Your task to perform on an android device: toggle improve location accuracy Image 0: 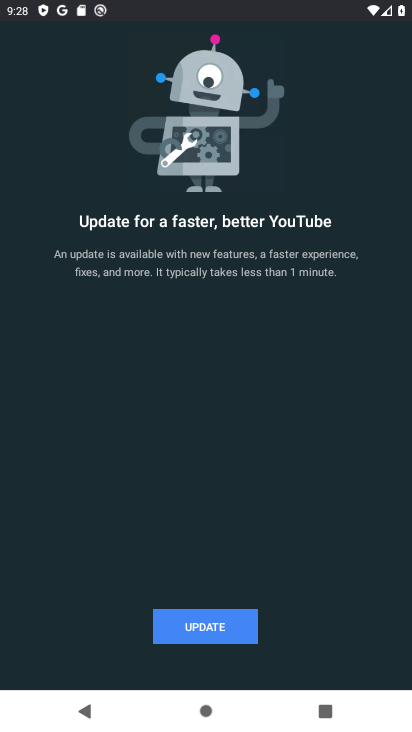
Step 0: press home button
Your task to perform on an android device: toggle improve location accuracy Image 1: 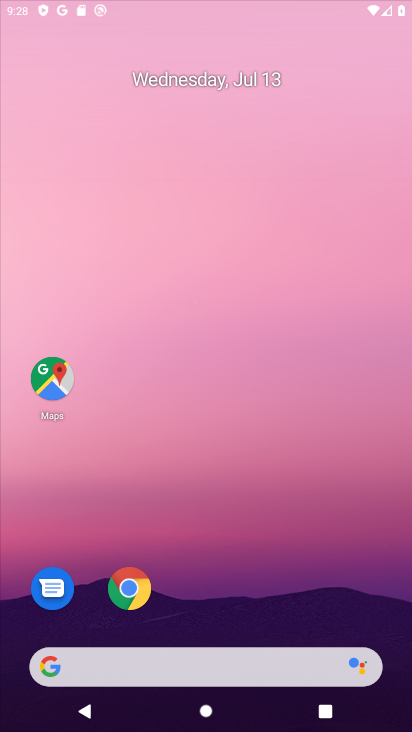
Step 1: drag from (231, 616) to (251, 63)
Your task to perform on an android device: toggle improve location accuracy Image 2: 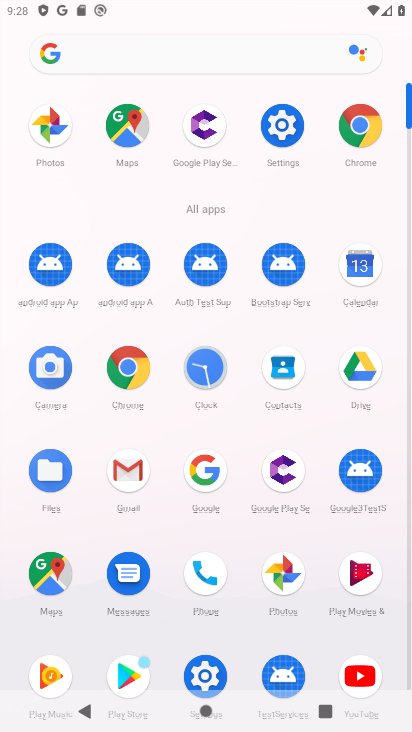
Step 2: click (289, 125)
Your task to perform on an android device: toggle improve location accuracy Image 3: 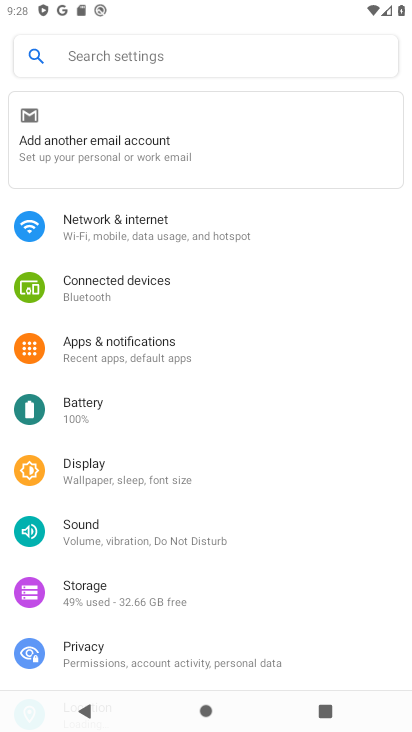
Step 3: drag from (173, 575) to (161, 231)
Your task to perform on an android device: toggle improve location accuracy Image 4: 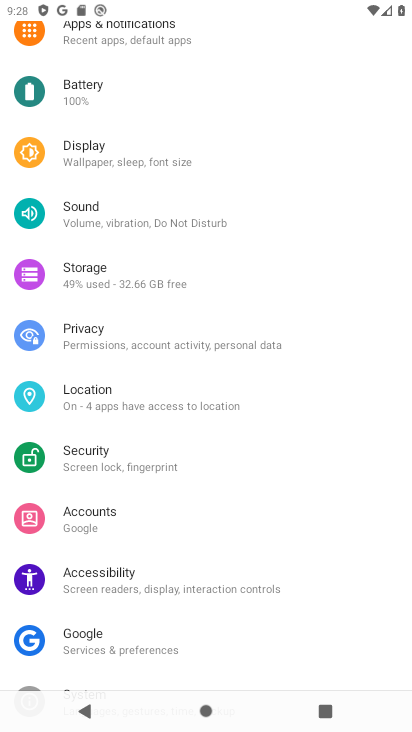
Step 4: click (126, 388)
Your task to perform on an android device: toggle improve location accuracy Image 5: 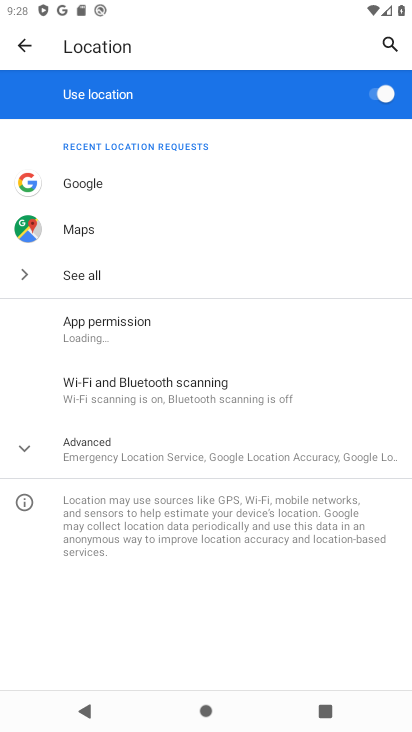
Step 5: click (90, 444)
Your task to perform on an android device: toggle improve location accuracy Image 6: 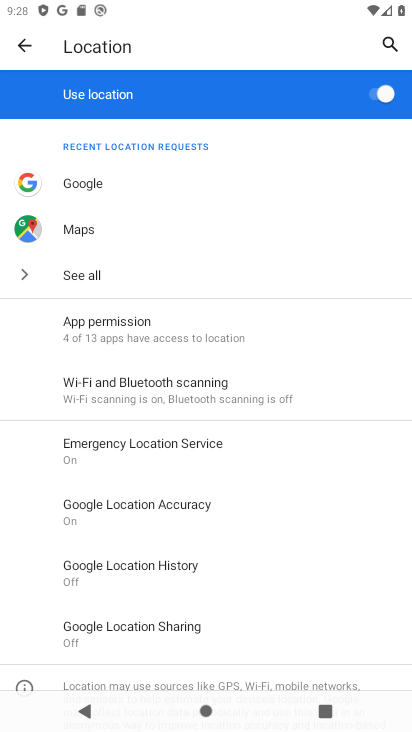
Step 6: click (170, 500)
Your task to perform on an android device: toggle improve location accuracy Image 7: 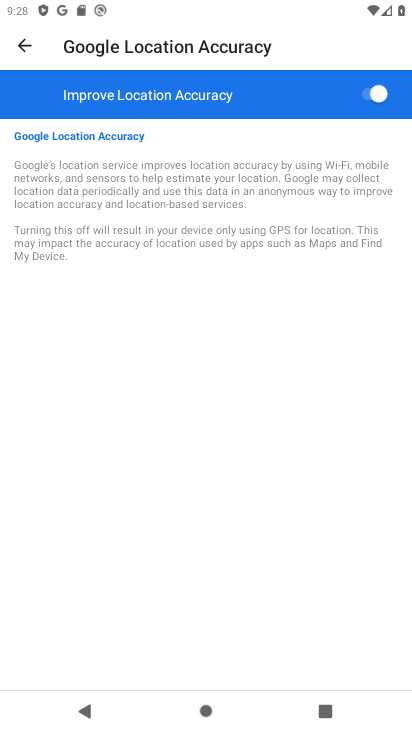
Step 7: click (362, 92)
Your task to perform on an android device: toggle improve location accuracy Image 8: 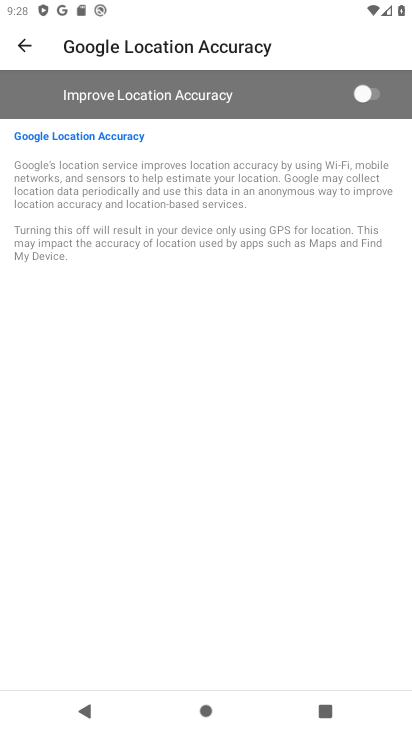
Step 8: task complete